Your task to perform on an android device: turn notification dots off Image 0: 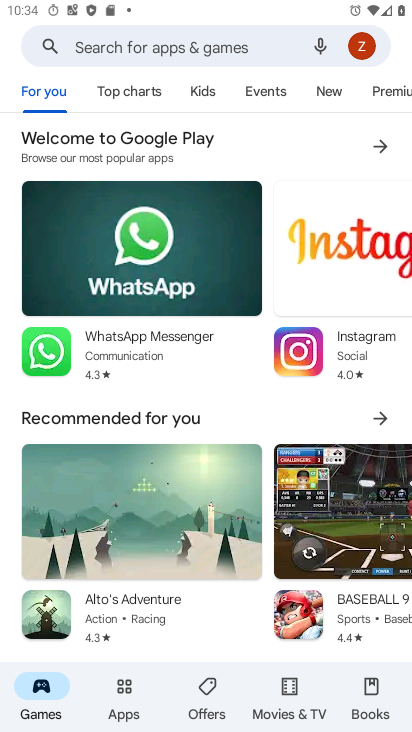
Step 0: press home button
Your task to perform on an android device: turn notification dots off Image 1: 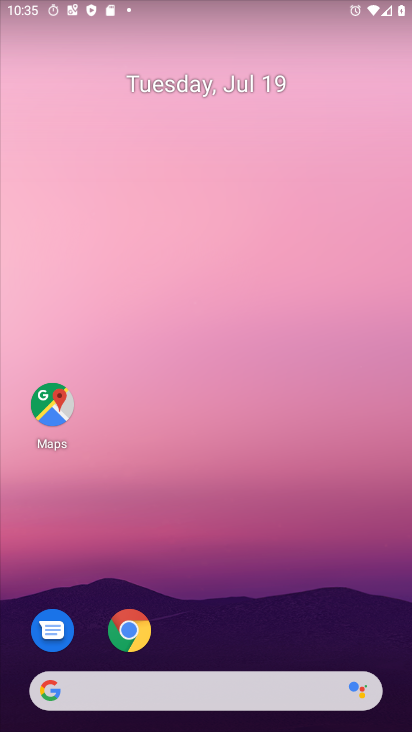
Step 1: drag from (232, 656) to (276, 183)
Your task to perform on an android device: turn notification dots off Image 2: 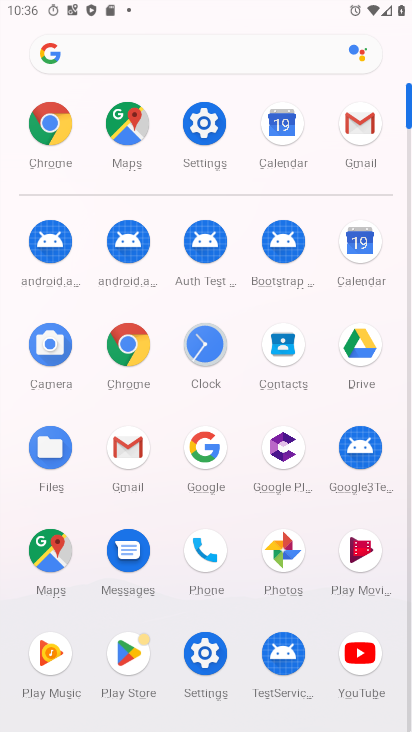
Step 2: click (202, 131)
Your task to perform on an android device: turn notification dots off Image 3: 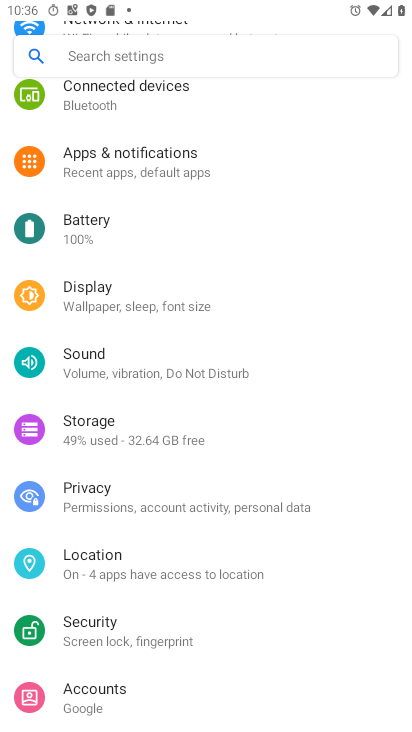
Step 3: click (168, 156)
Your task to perform on an android device: turn notification dots off Image 4: 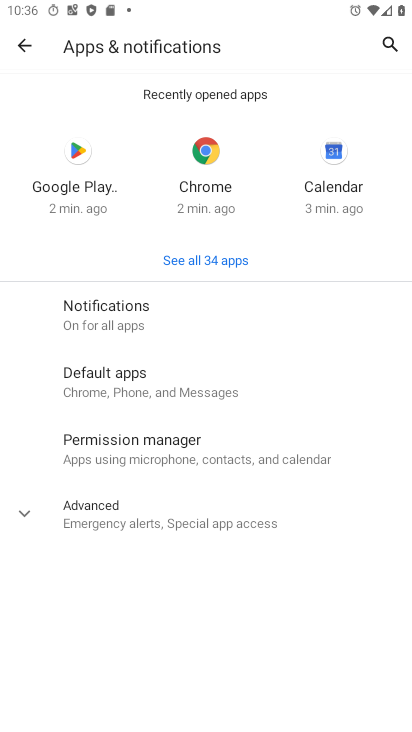
Step 4: click (140, 310)
Your task to perform on an android device: turn notification dots off Image 5: 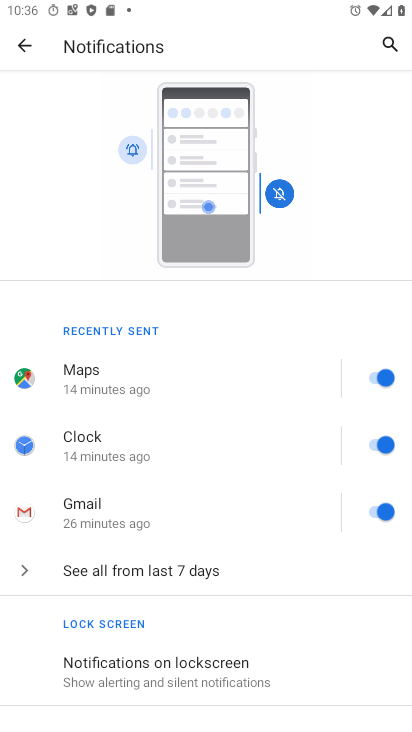
Step 5: drag from (58, 616) to (66, 205)
Your task to perform on an android device: turn notification dots off Image 6: 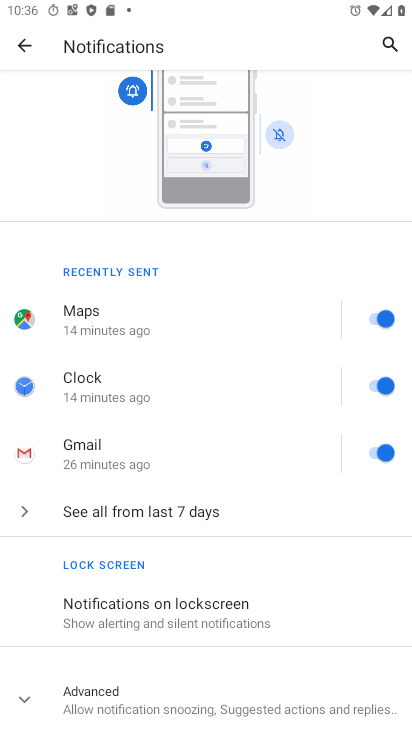
Step 6: click (26, 706)
Your task to perform on an android device: turn notification dots off Image 7: 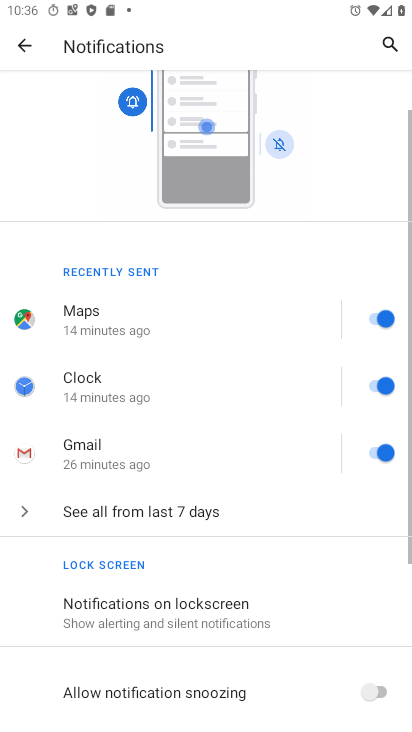
Step 7: drag from (302, 617) to (288, 243)
Your task to perform on an android device: turn notification dots off Image 8: 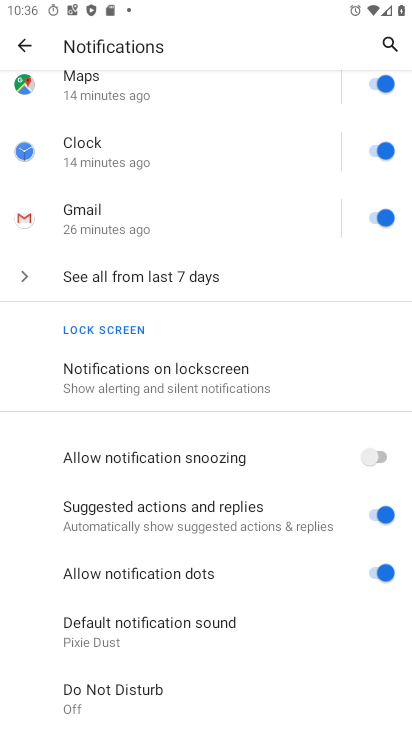
Step 8: click (386, 567)
Your task to perform on an android device: turn notification dots off Image 9: 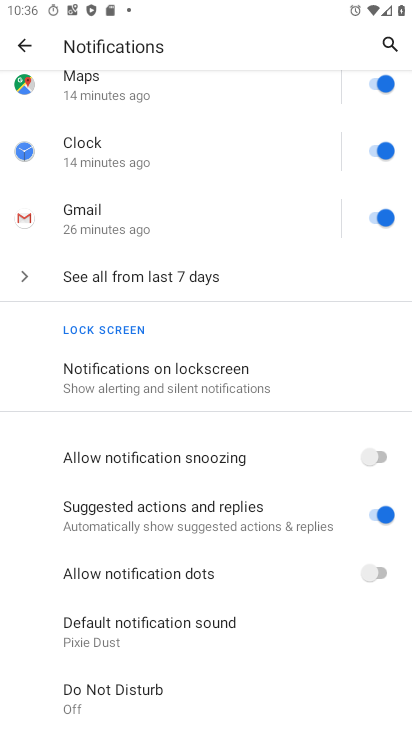
Step 9: task complete